Your task to perform on an android device: Show me popular videos on Youtube Image 0: 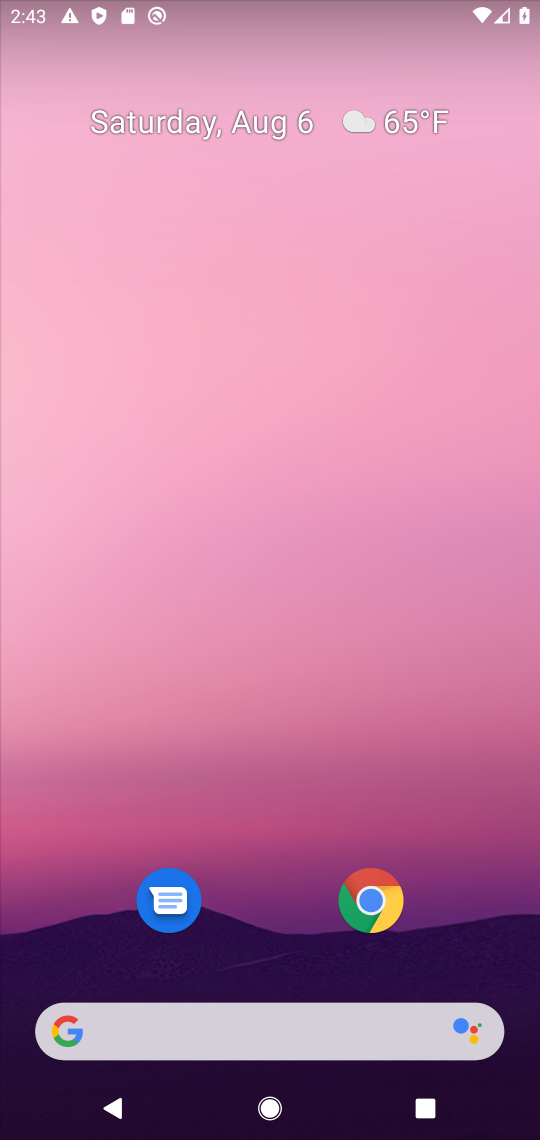
Step 0: press home button
Your task to perform on an android device: Show me popular videos on Youtube Image 1: 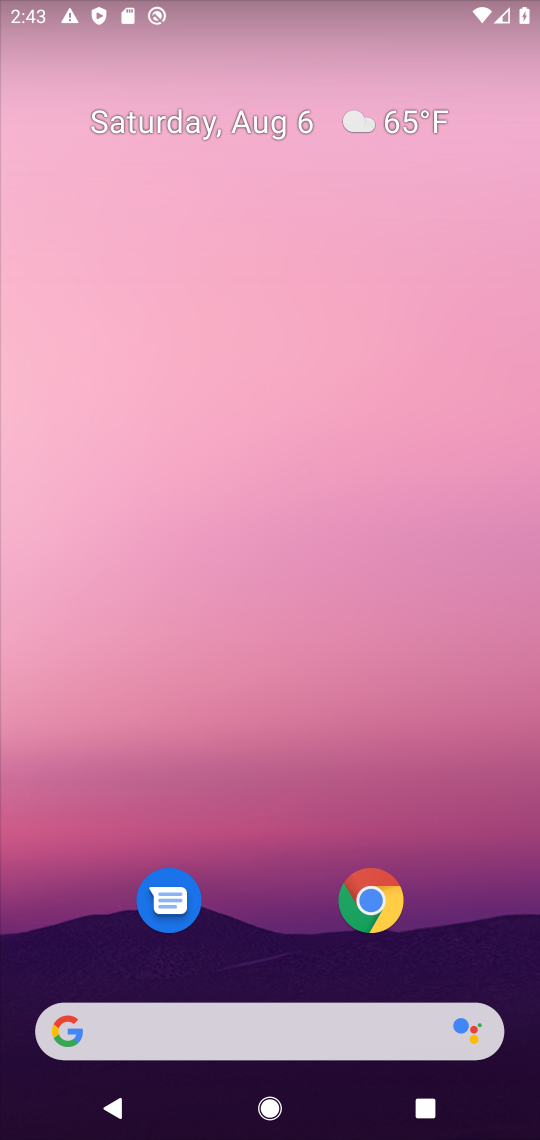
Step 1: drag from (334, 129) to (353, 15)
Your task to perform on an android device: Show me popular videos on Youtube Image 2: 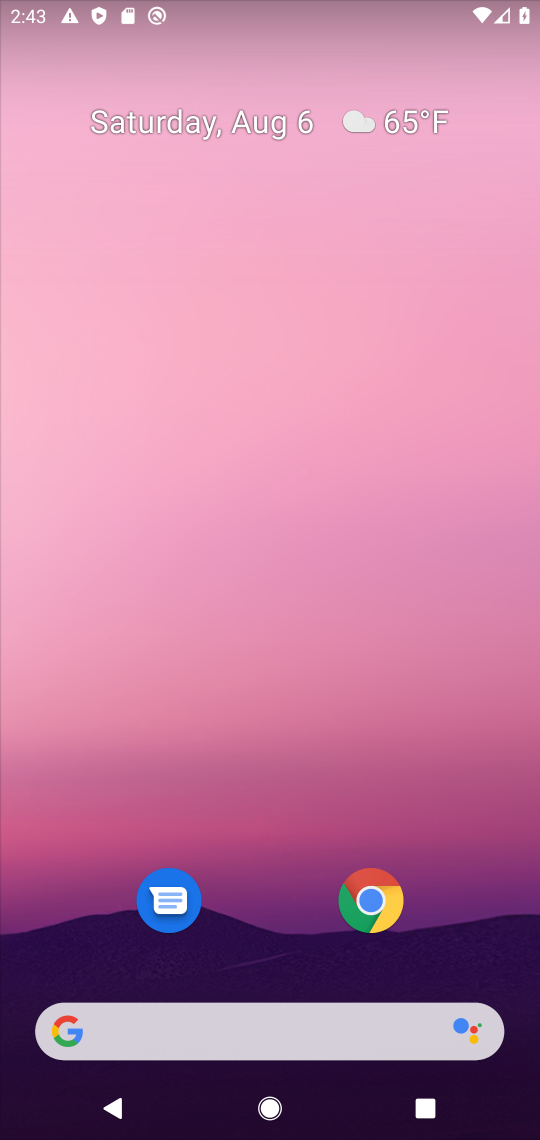
Step 2: drag from (258, 908) to (509, 1122)
Your task to perform on an android device: Show me popular videos on Youtube Image 3: 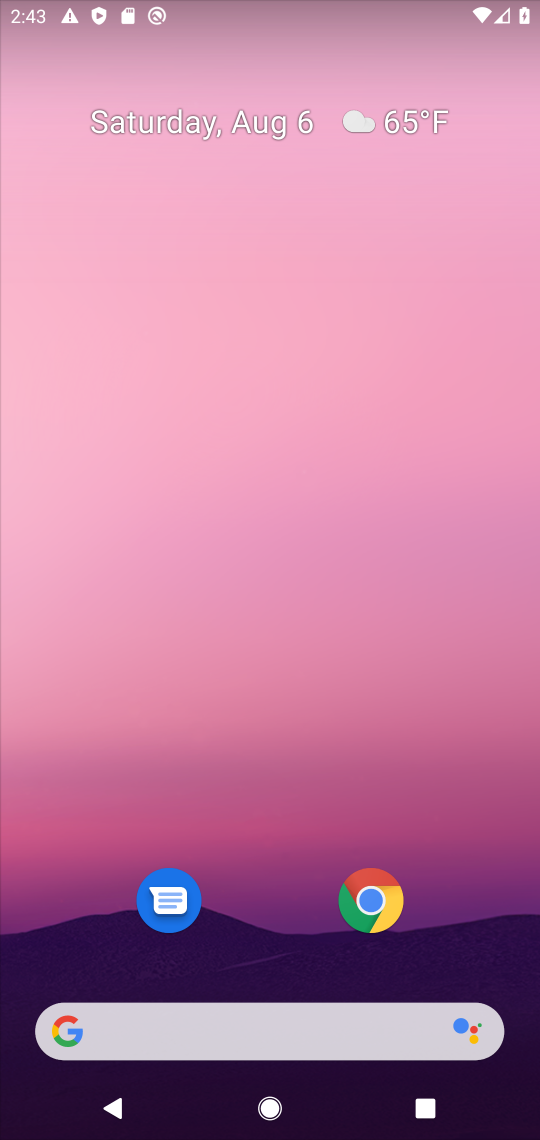
Step 3: click (464, 1108)
Your task to perform on an android device: Show me popular videos on Youtube Image 4: 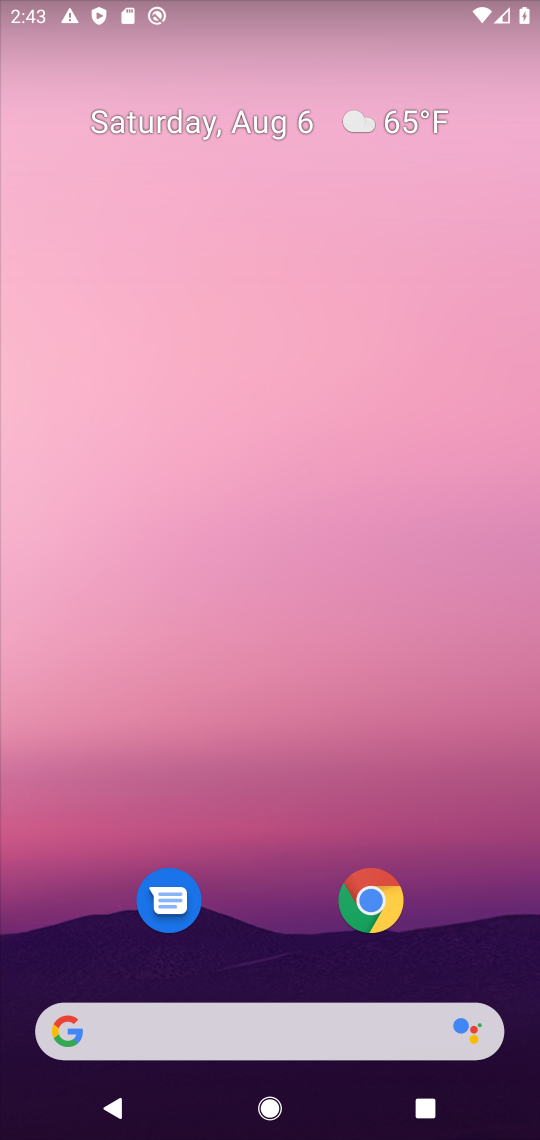
Step 4: drag from (295, 916) to (314, 74)
Your task to perform on an android device: Show me popular videos on Youtube Image 5: 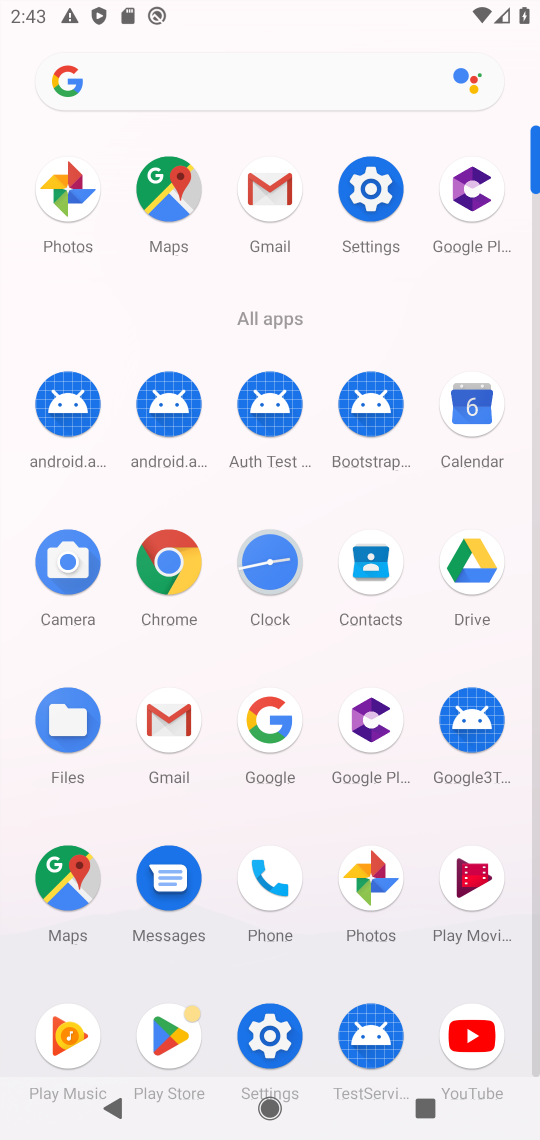
Step 5: click (473, 1049)
Your task to perform on an android device: Show me popular videos on Youtube Image 6: 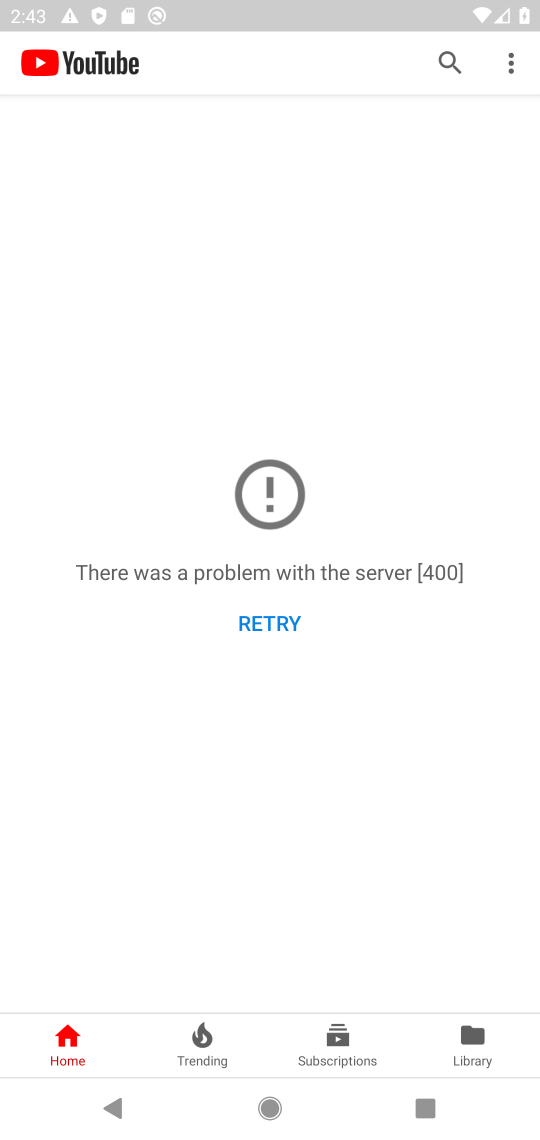
Step 6: click (252, 621)
Your task to perform on an android device: Show me popular videos on Youtube Image 7: 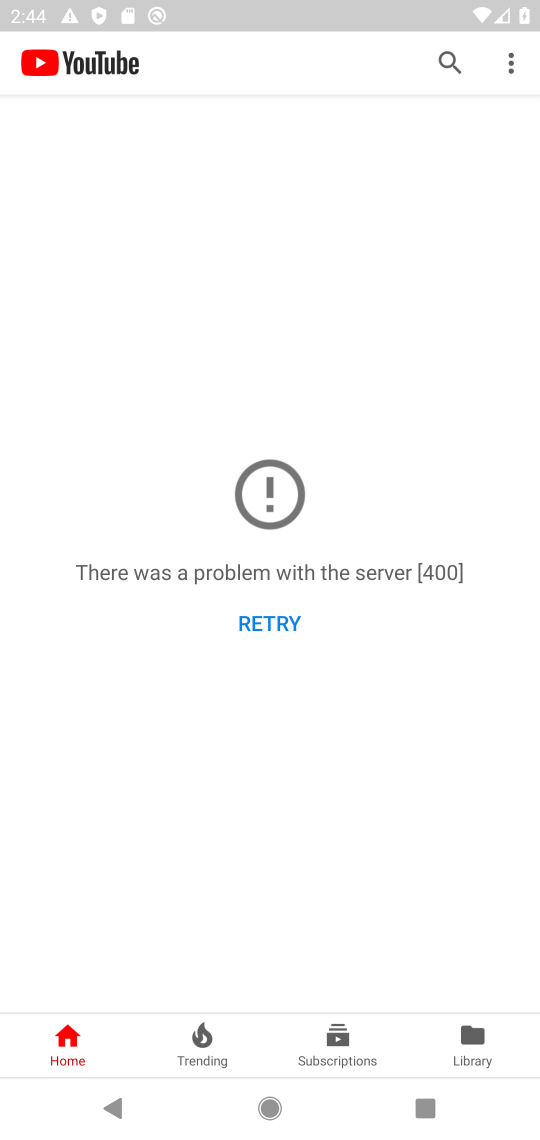
Step 7: click (195, 1046)
Your task to perform on an android device: Show me popular videos on Youtube Image 8: 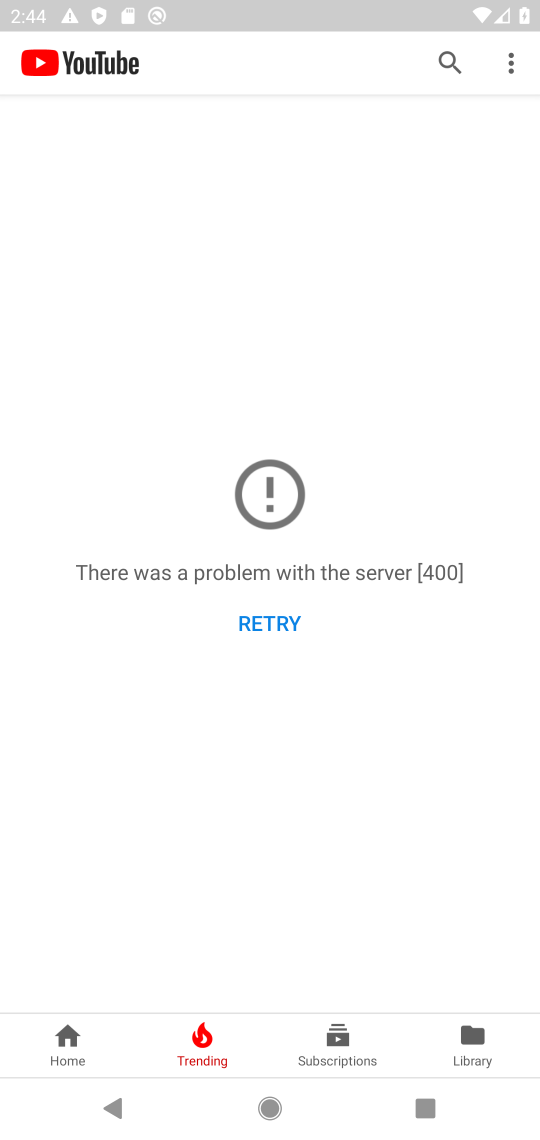
Step 8: task complete